Your task to perform on an android device: Open display settings Image 0: 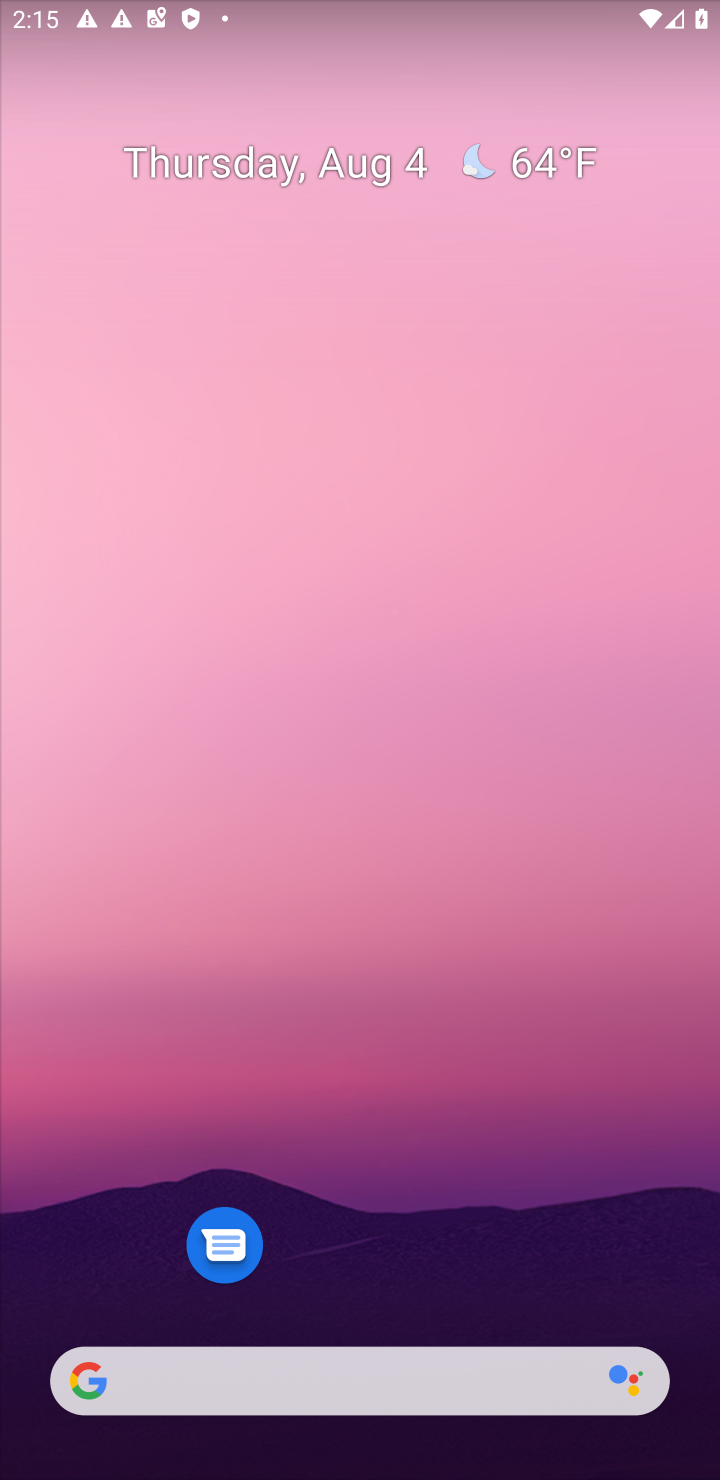
Step 0: drag from (353, 980) to (349, 340)
Your task to perform on an android device: Open display settings Image 1: 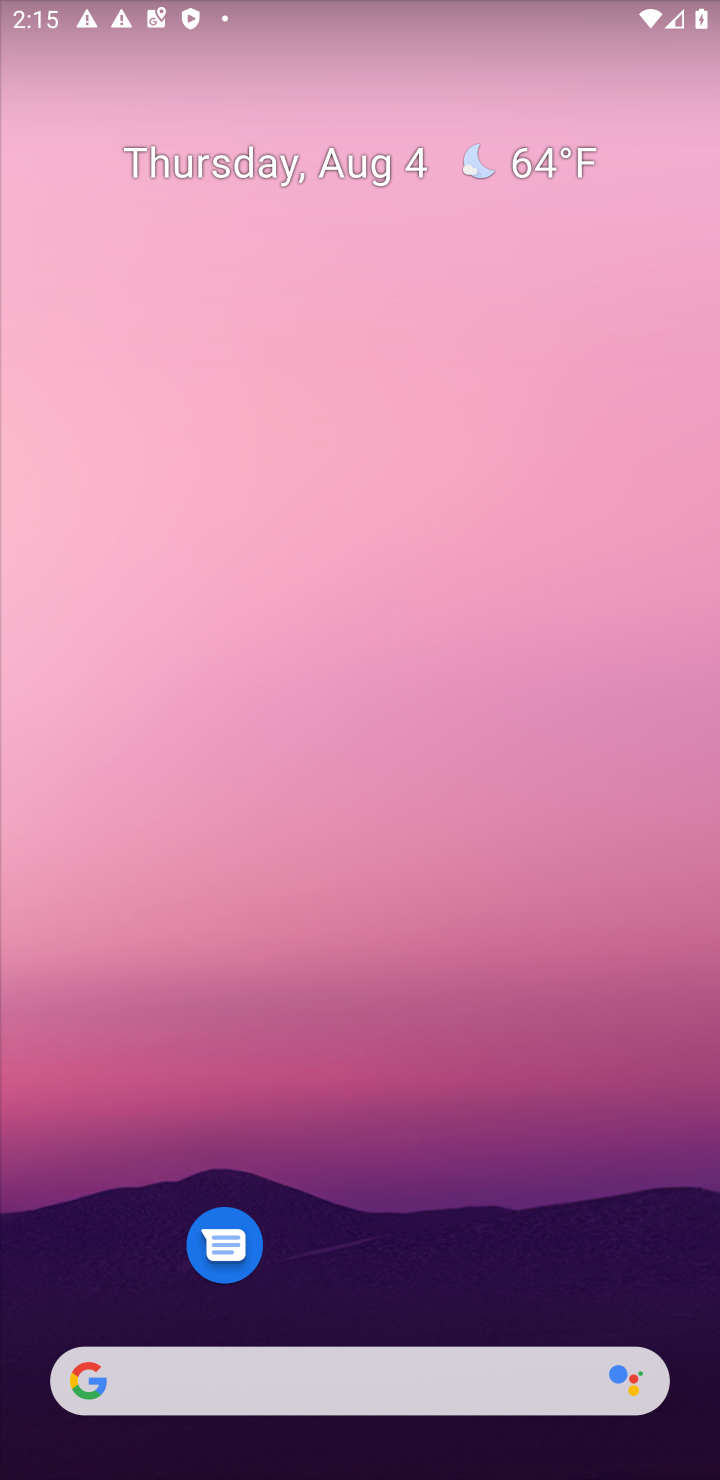
Step 1: drag from (326, 1082) to (398, 283)
Your task to perform on an android device: Open display settings Image 2: 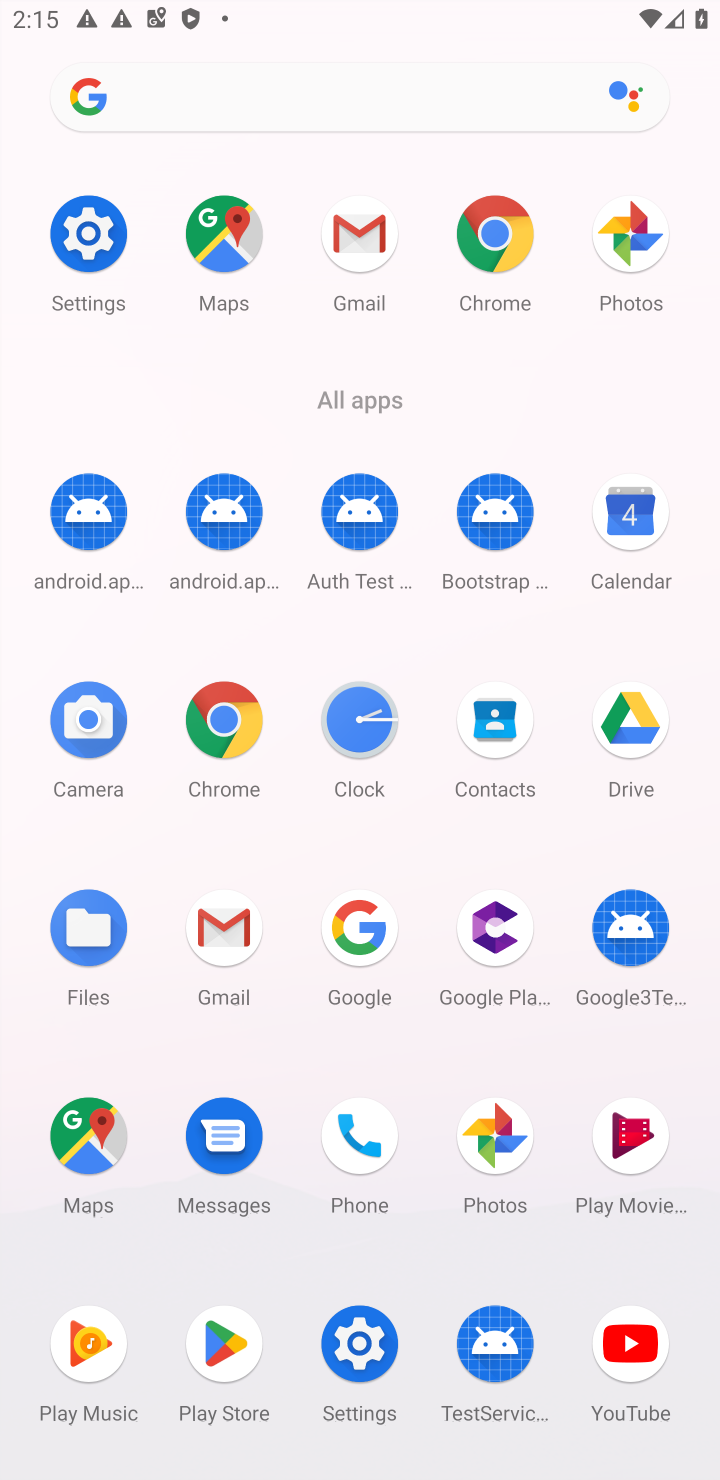
Step 2: click (104, 229)
Your task to perform on an android device: Open display settings Image 3: 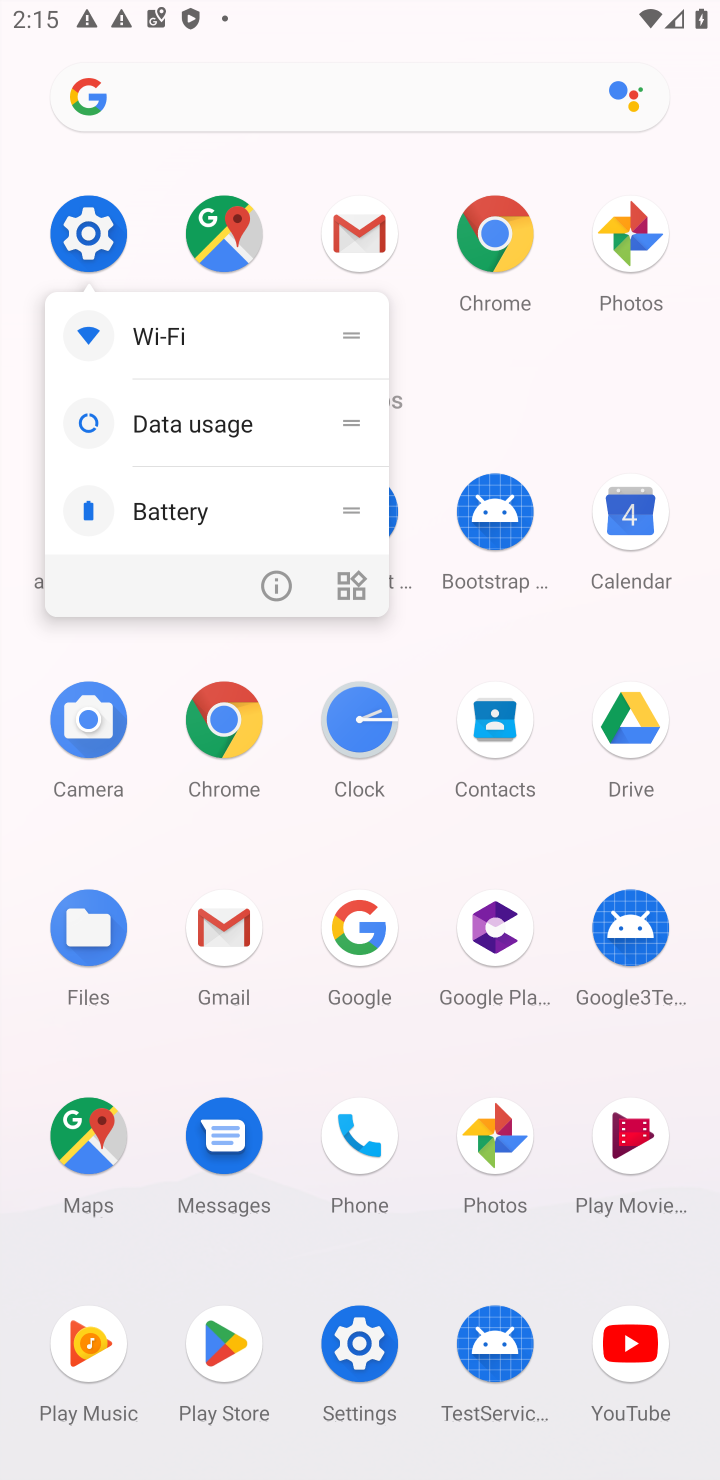
Step 3: click (67, 252)
Your task to perform on an android device: Open display settings Image 4: 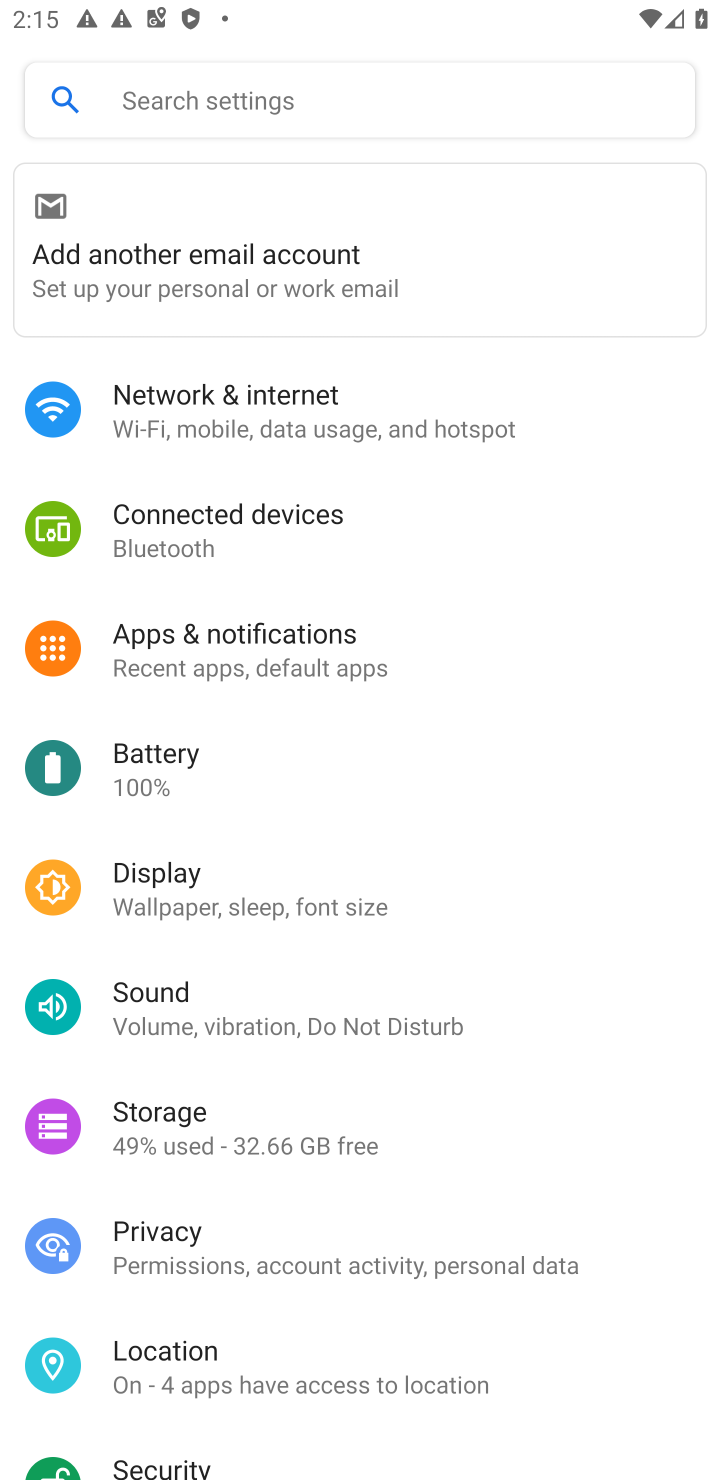
Step 4: drag from (213, 682) to (385, 225)
Your task to perform on an android device: Open display settings Image 5: 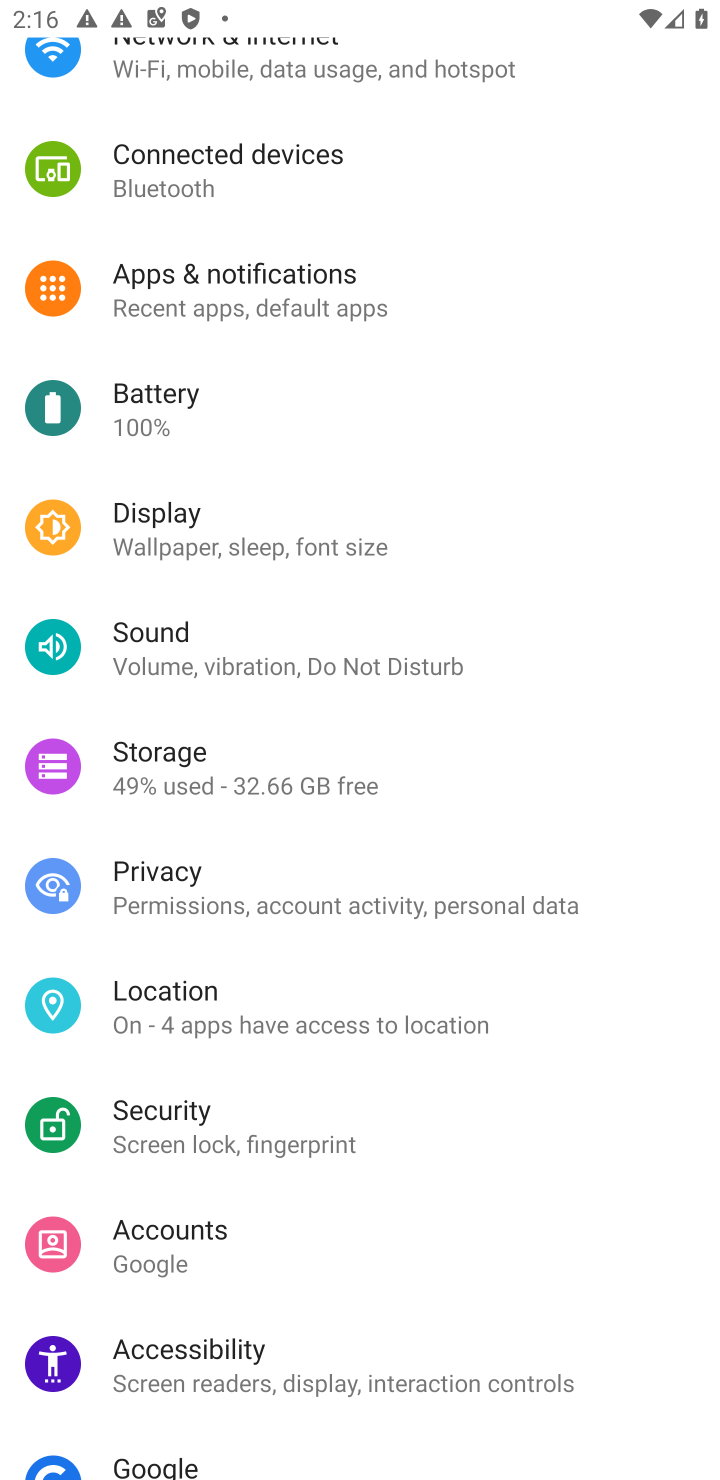
Step 5: click (210, 536)
Your task to perform on an android device: Open display settings Image 6: 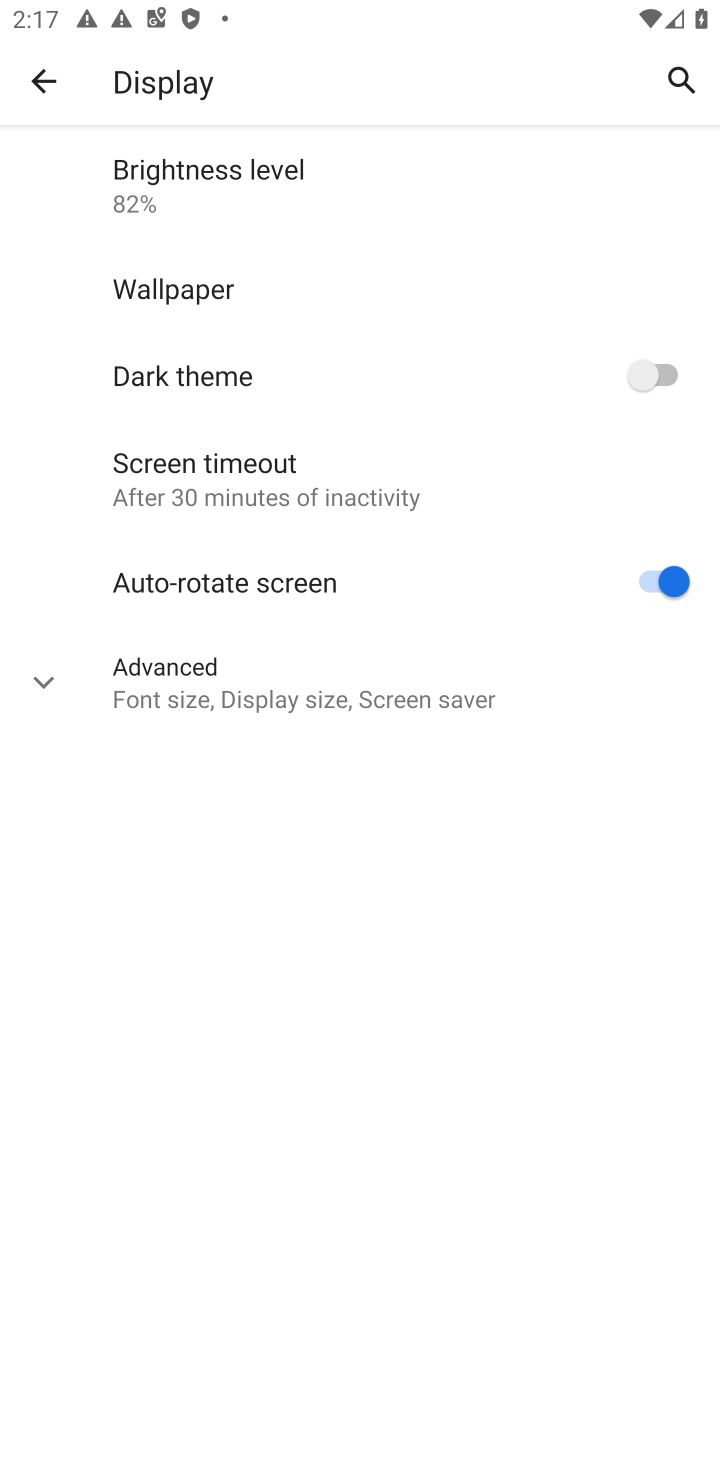
Step 6: task complete